Your task to perform on an android device: Go to wifi settings Image 0: 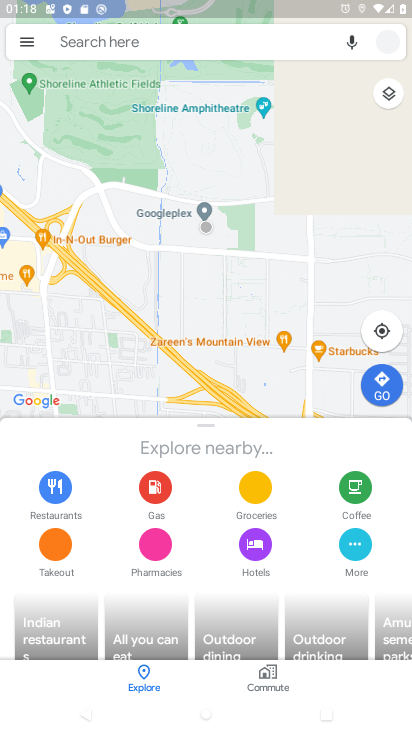
Step 0: press home button
Your task to perform on an android device: Go to wifi settings Image 1: 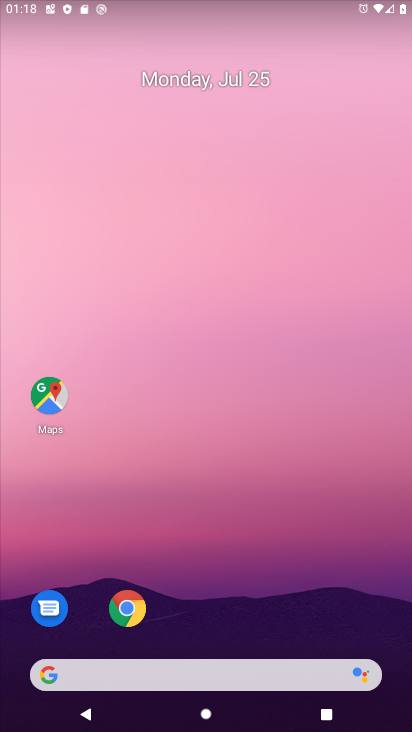
Step 1: drag from (177, 639) to (329, 42)
Your task to perform on an android device: Go to wifi settings Image 2: 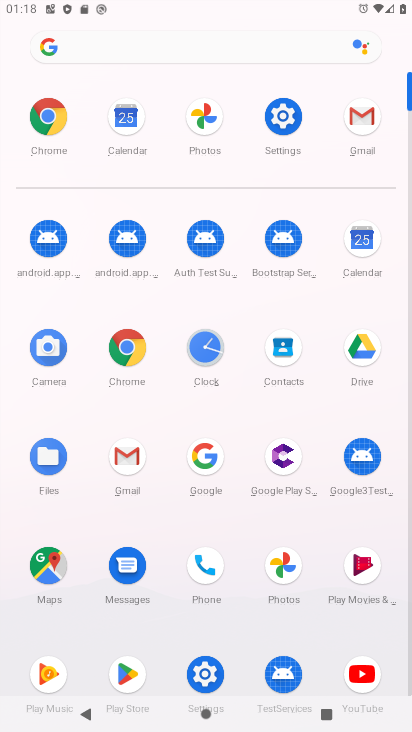
Step 2: click (275, 134)
Your task to perform on an android device: Go to wifi settings Image 3: 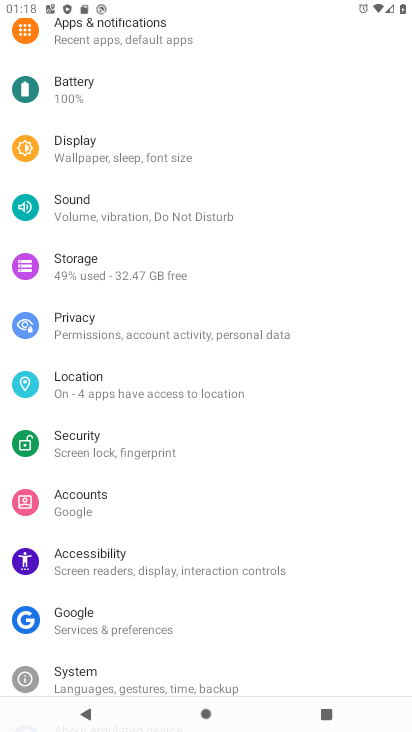
Step 3: drag from (133, 94) to (131, 638)
Your task to perform on an android device: Go to wifi settings Image 4: 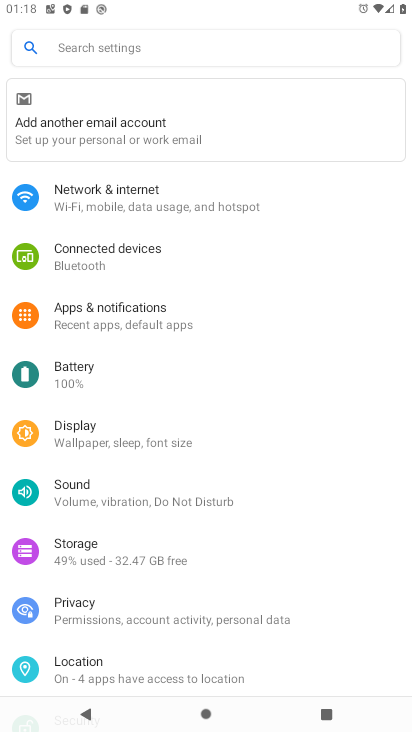
Step 4: click (112, 196)
Your task to perform on an android device: Go to wifi settings Image 5: 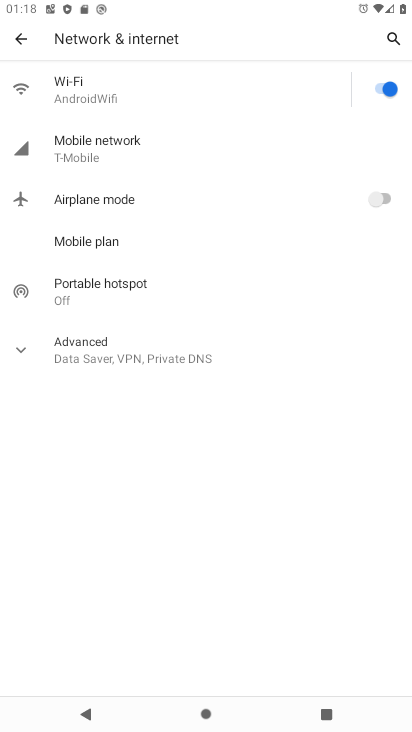
Step 5: click (87, 89)
Your task to perform on an android device: Go to wifi settings Image 6: 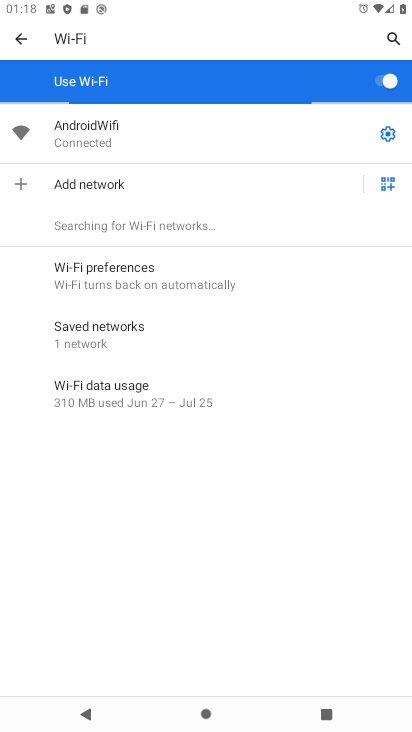
Step 6: task complete